Your task to perform on an android device: What's the weather today? Image 0: 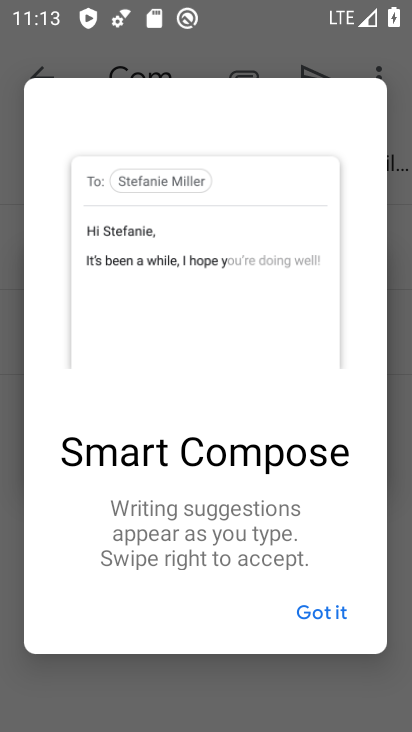
Step 0: press home button
Your task to perform on an android device: What's the weather today? Image 1: 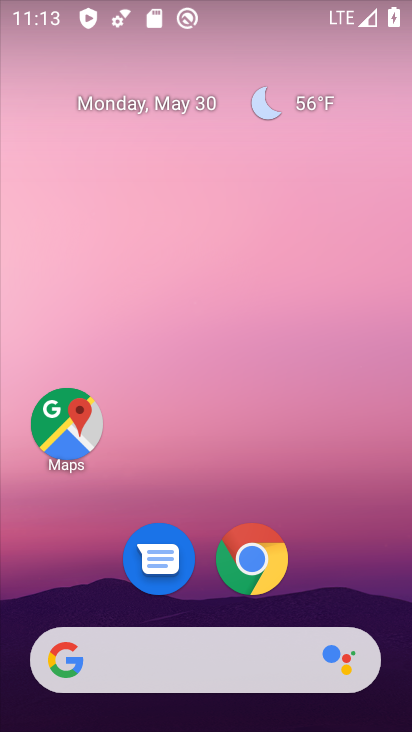
Step 1: click (270, 568)
Your task to perform on an android device: What's the weather today? Image 2: 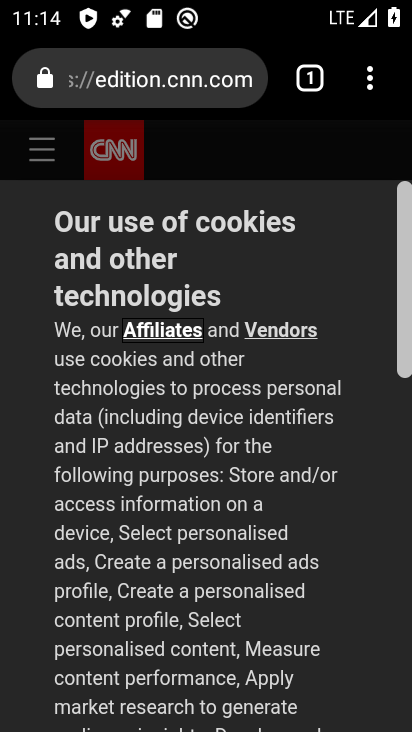
Step 2: click (198, 77)
Your task to perform on an android device: What's the weather today? Image 3: 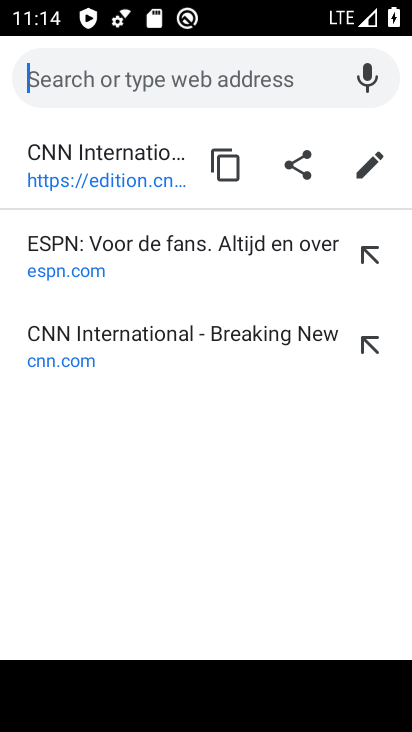
Step 3: type "Is it going to rain tomorrow?"
Your task to perform on an android device: What's the weather today? Image 4: 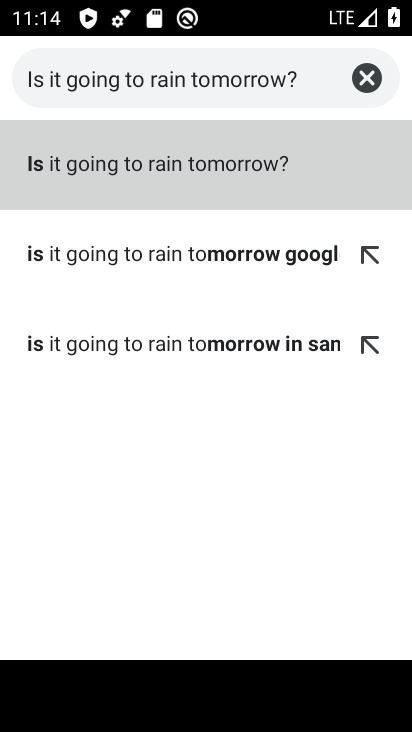
Step 4: click (233, 167)
Your task to perform on an android device: What's the weather today? Image 5: 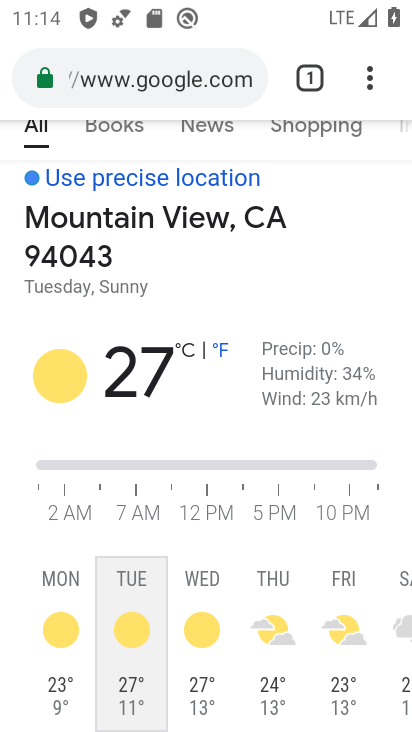
Step 5: task complete